Your task to perform on an android device: Do I have any events this weekend? Image 0: 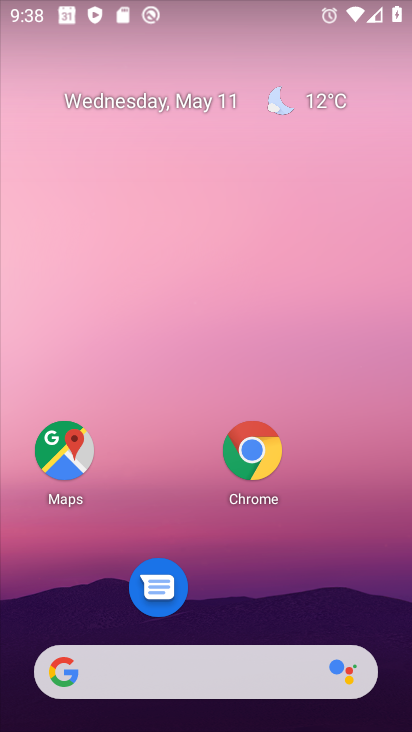
Step 0: drag from (375, 644) to (388, 23)
Your task to perform on an android device: Do I have any events this weekend? Image 1: 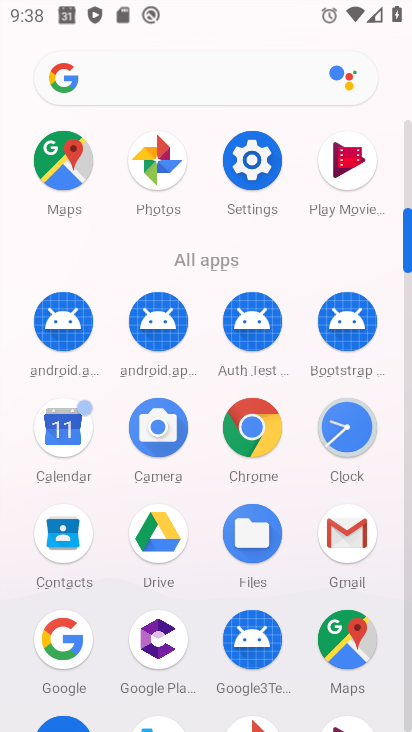
Step 1: click (74, 438)
Your task to perform on an android device: Do I have any events this weekend? Image 2: 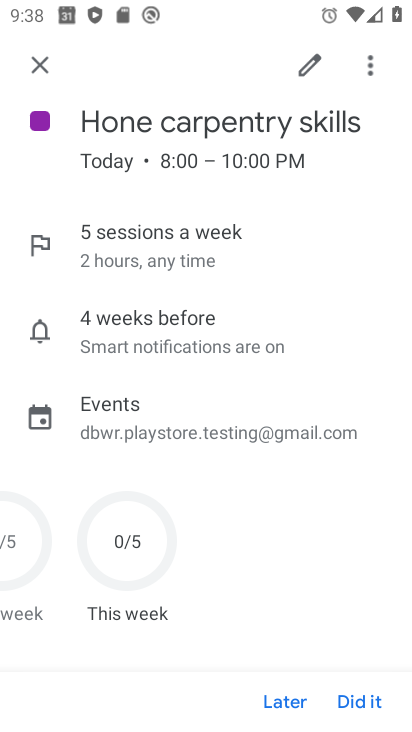
Step 2: click (38, 68)
Your task to perform on an android device: Do I have any events this weekend? Image 3: 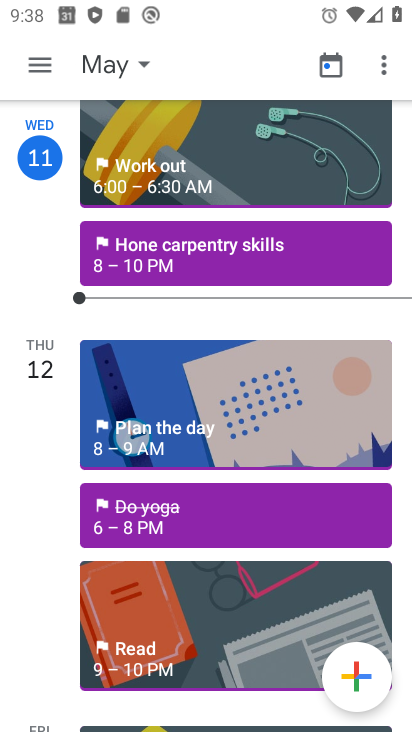
Step 3: click (39, 58)
Your task to perform on an android device: Do I have any events this weekend? Image 4: 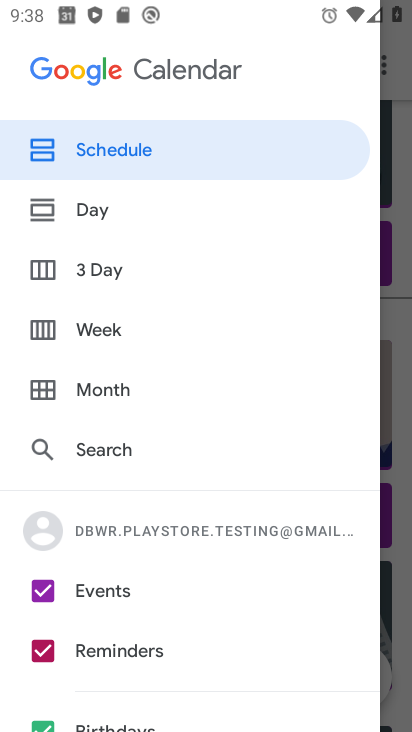
Step 4: click (49, 647)
Your task to perform on an android device: Do I have any events this weekend? Image 5: 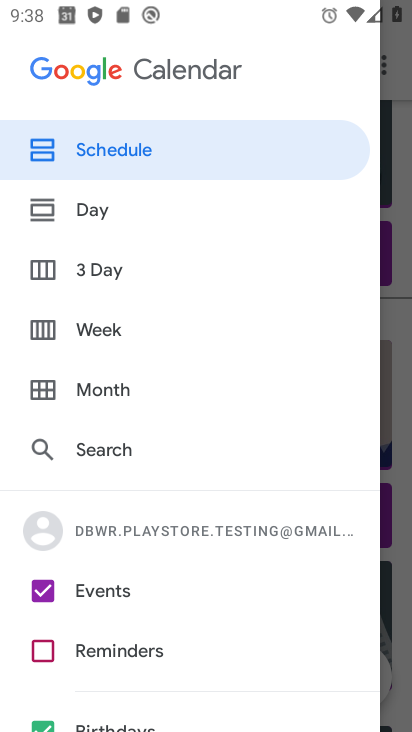
Step 5: click (55, 721)
Your task to perform on an android device: Do I have any events this weekend? Image 6: 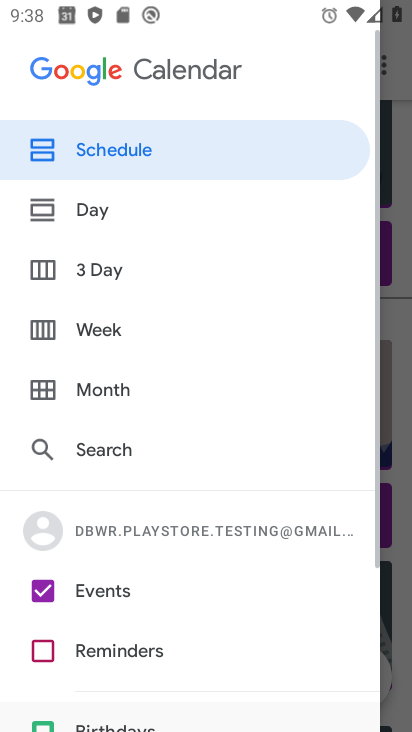
Step 6: drag from (239, 383) to (249, 214)
Your task to perform on an android device: Do I have any events this weekend? Image 7: 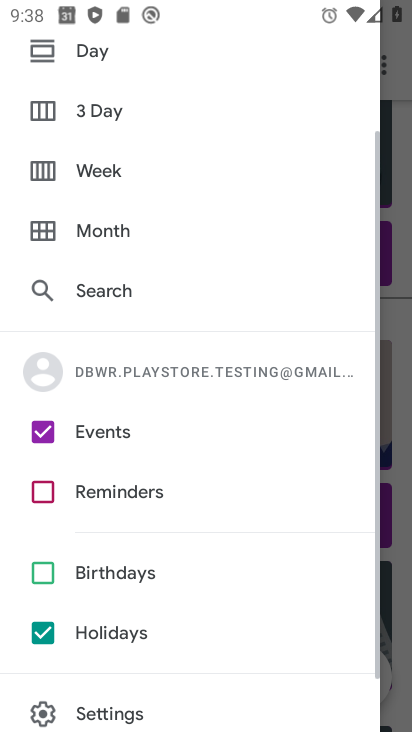
Step 7: click (37, 630)
Your task to perform on an android device: Do I have any events this weekend? Image 8: 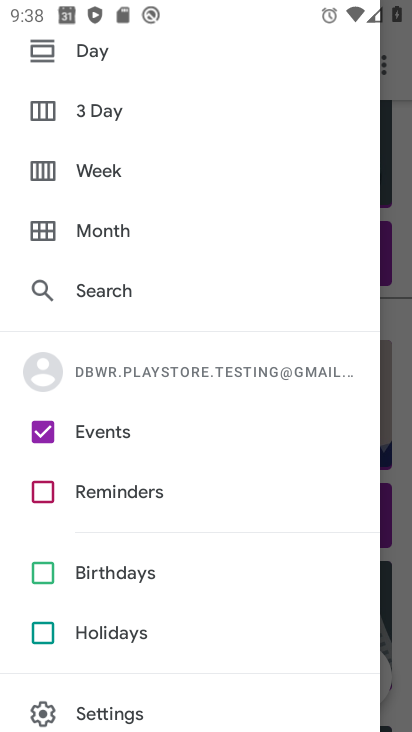
Step 8: drag from (195, 466) to (219, 604)
Your task to perform on an android device: Do I have any events this weekend? Image 9: 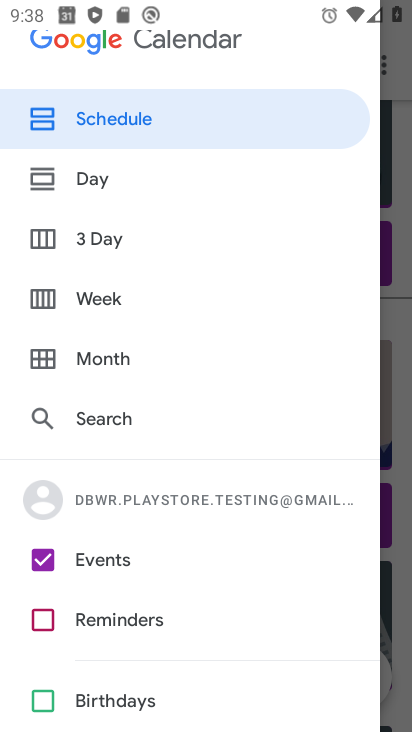
Step 9: click (89, 293)
Your task to perform on an android device: Do I have any events this weekend? Image 10: 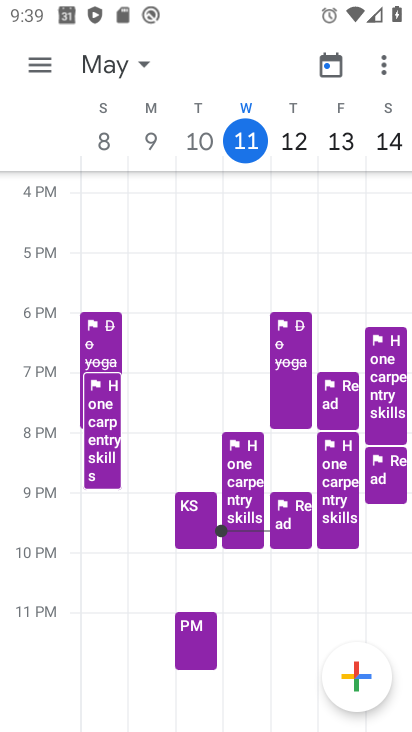
Step 10: task complete